Your task to perform on an android device: change text size in settings app Image 0: 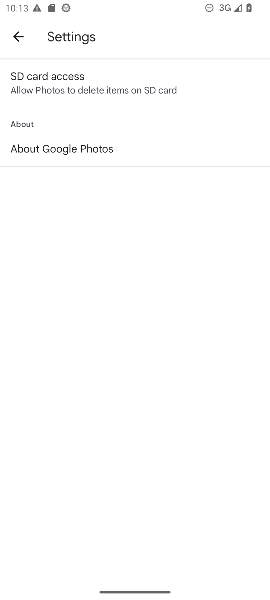
Step 0: press home button
Your task to perform on an android device: change text size in settings app Image 1: 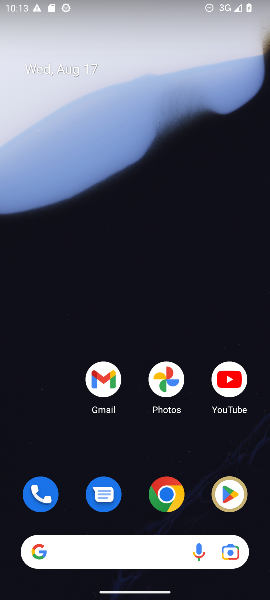
Step 1: drag from (144, 435) to (172, 1)
Your task to perform on an android device: change text size in settings app Image 2: 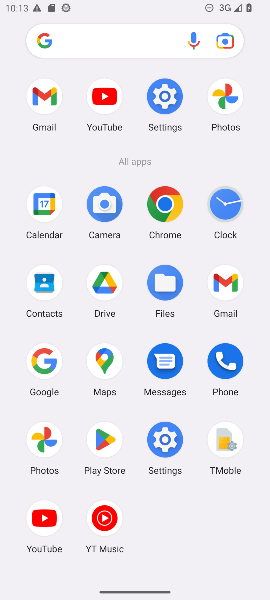
Step 2: click (170, 429)
Your task to perform on an android device: change text size in settings app Image 3: 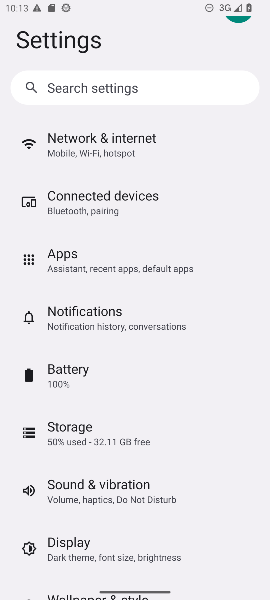
Step 3: click (75, 549)
Your task to perform on an android device: change text size in settings app Image 4: 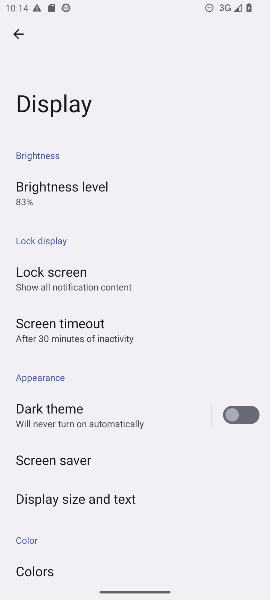
Step 4: click (84, 496)
Your task to perform on an android device: change text size in settings app Image 5: 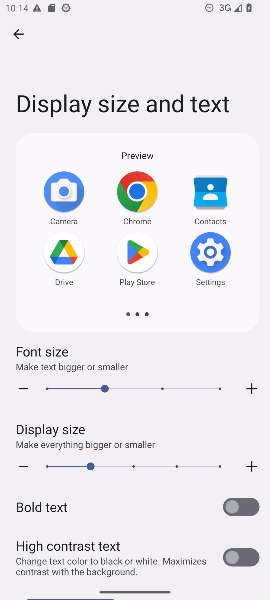
Step 5: click (73, 383)
Your task to perform on an android device: change text size in settings app Image 6: 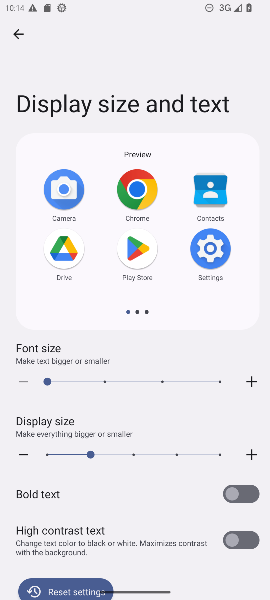
Step 6: task complete